Your task to perform on an android device: turn on wifi Image 0: 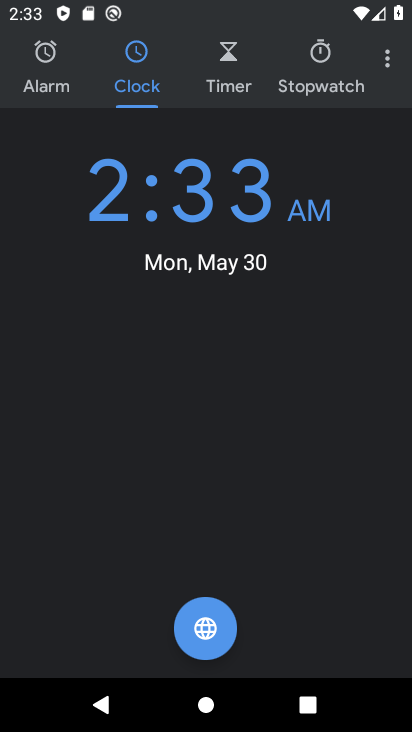
Step 0: press home button
Your task to perform on an android device: turn on wifi Image 1: 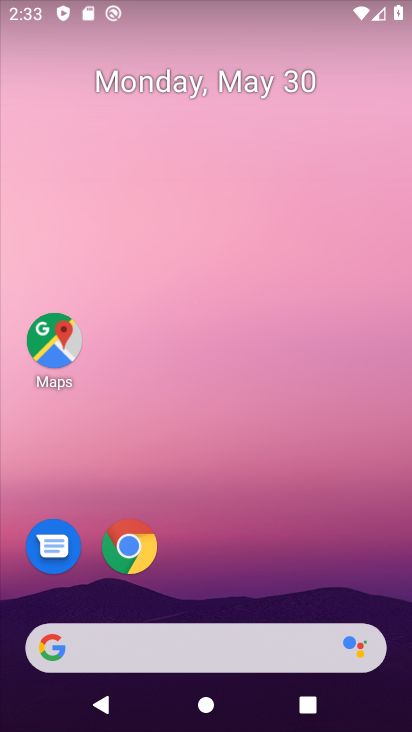
Step 1: drag from (285, 559) to (206, 58)
Your task to perform on an android device: turn on wifi Image 2: 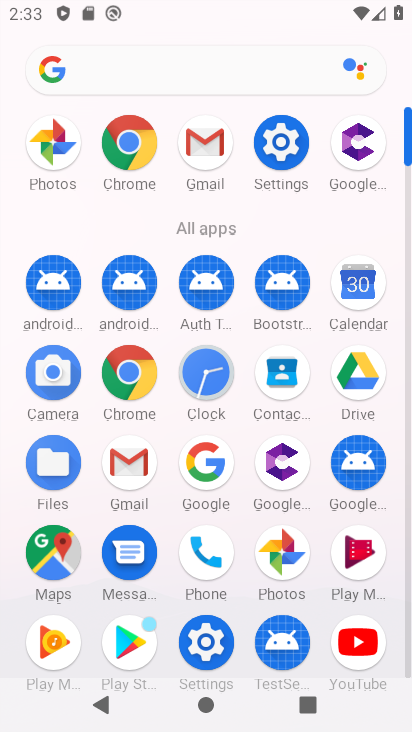
Step 2: click (284, 143)
Your task to perform on an android device: turn on wifi Image 3: 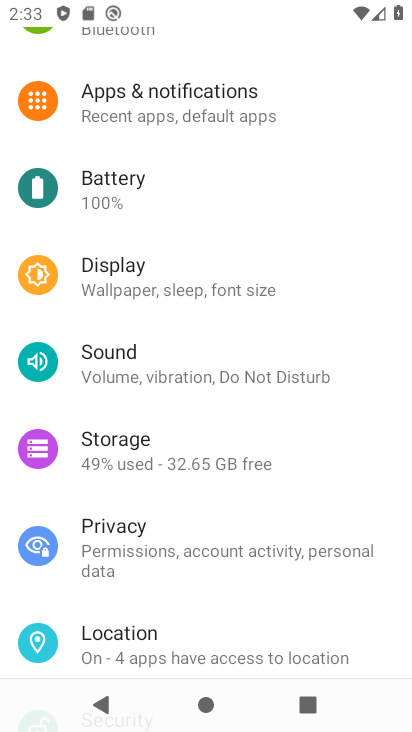
Step 3: drag from (155, 128) to (227, 500)
Your task to perform on an android device: turn on wifi Image 4: 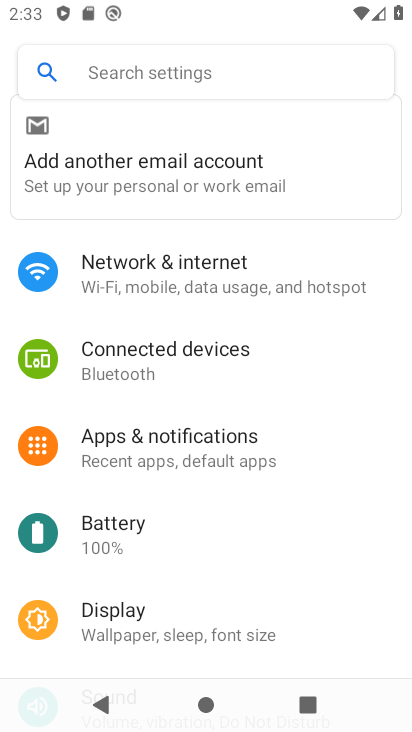
Step 4: click (170, 279)
Your task to perform on an android device: turn on wifi Image 5: 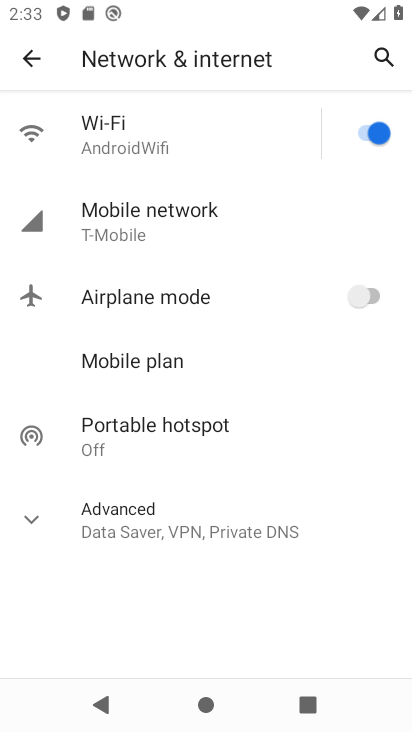
Step 5: click (242, 144)
Your task to perform on an android device: turn on wifi Image 6: 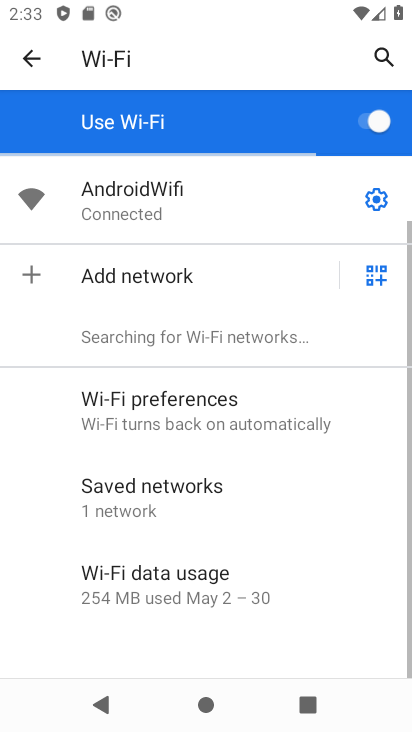
Step 6: task complete